Your task to perform on an android device: stop showing notifications on the lock screen Image 0: 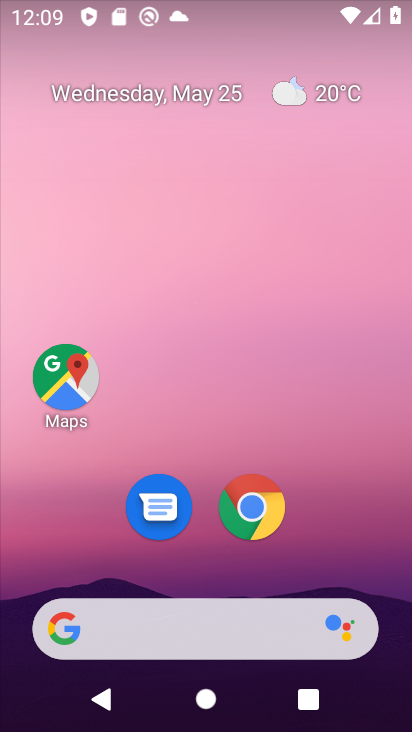
Step 0: drag from (344, 560) to (306, 187)
Your task to perform on an android device: stop showing notifications on the lock screen Image 1: 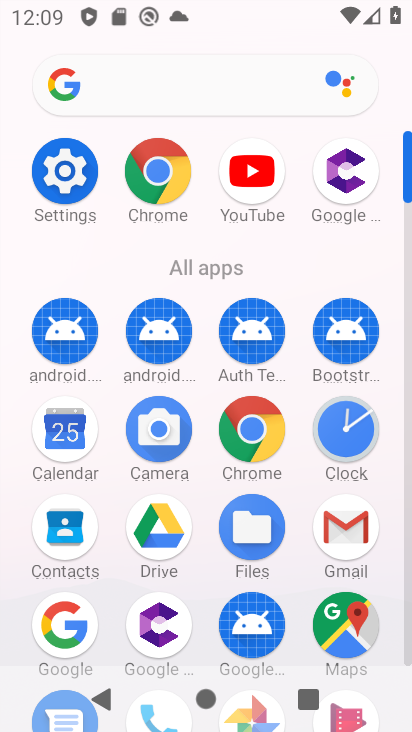
Step 1: click (62, 194)
Your task to perform on an android device: stop showing notifications on the lock screen Image 2: 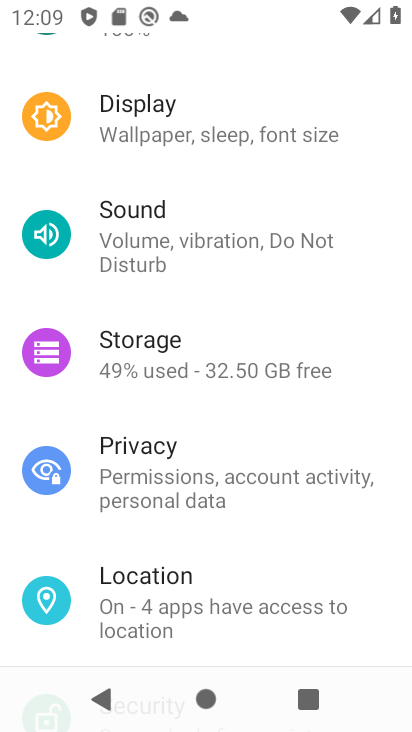
Step 2: drag from (287, 124) to (294, 567)
Your task to perform on an android device: stop showing notifications on the lock screen Image 3: 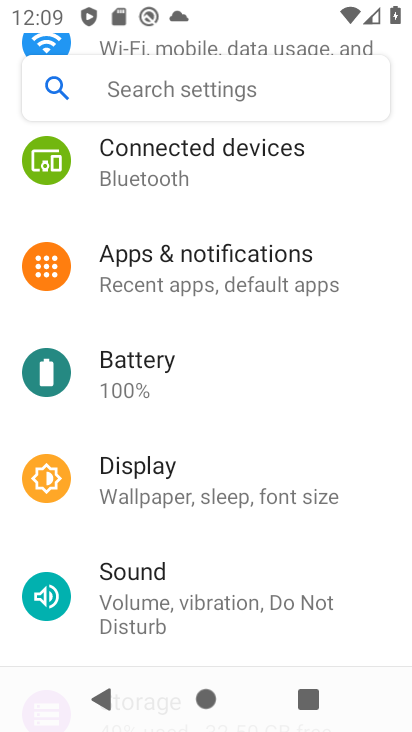
Step 3: click (225, 267)
Your task to perform on an android device: stop showing notifications on the lock screen Image 4: 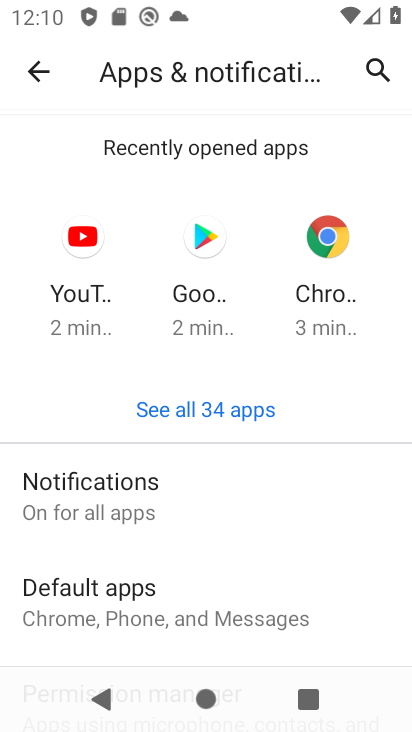
Step 4: click (174, 504)
Your task to perform on an android device: stop showing notifications on the lock screen Image 5: 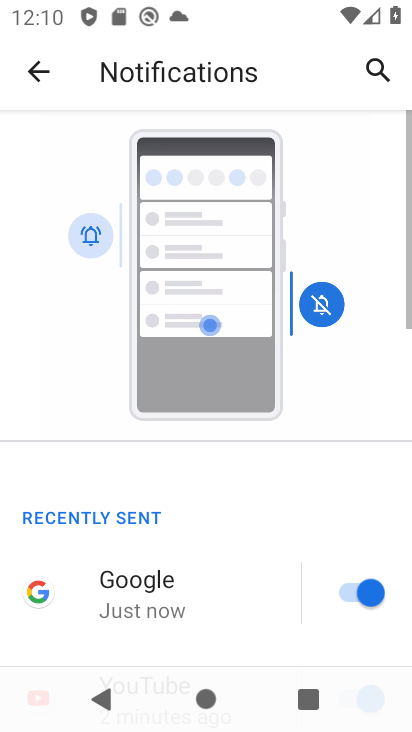
Step 5: click (208, 245)
Your task to perform on an android device: stop showing notifications on the lock screen Image 6: 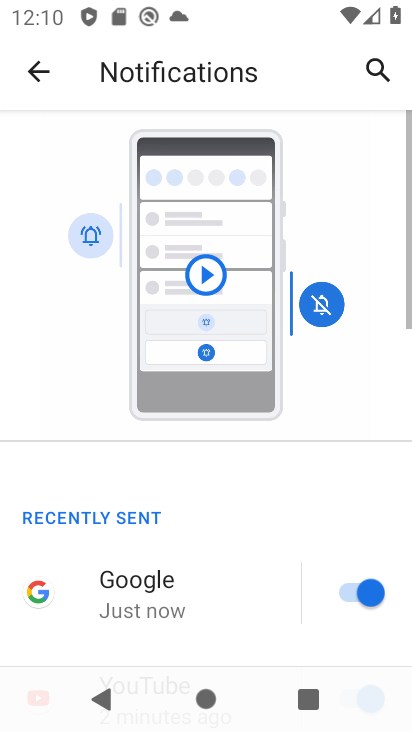
Step 6: drag from (208, 470) to (241, 236)
Your task to perform on an android device: stop showing notifications on the lock screen Image 7: 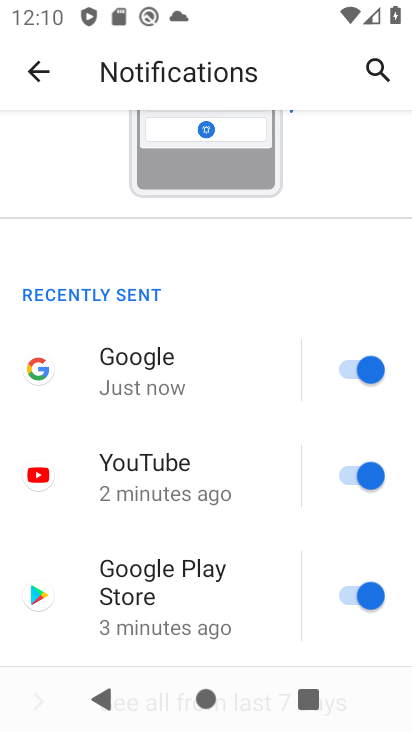
Step 7: drag from (253, 585) to (284, 215)
Your task to perform on an android device: stop showing notifications on the lock screen Image 8: 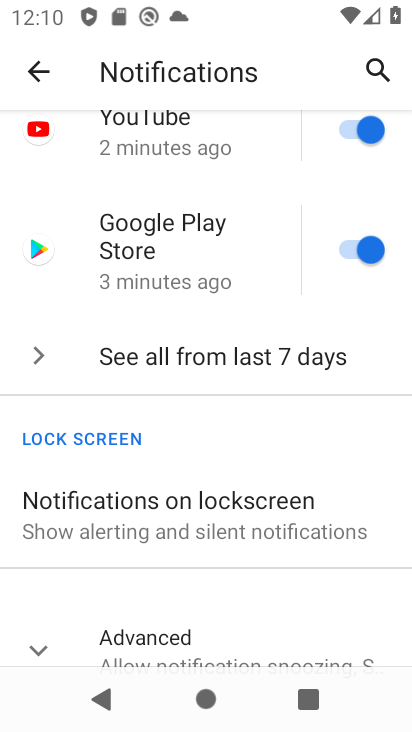
Step 8: drag from (246, 600) to (255, 127)
Your task to perform on an android device: stop showing notifications on the lock screen Image 9: 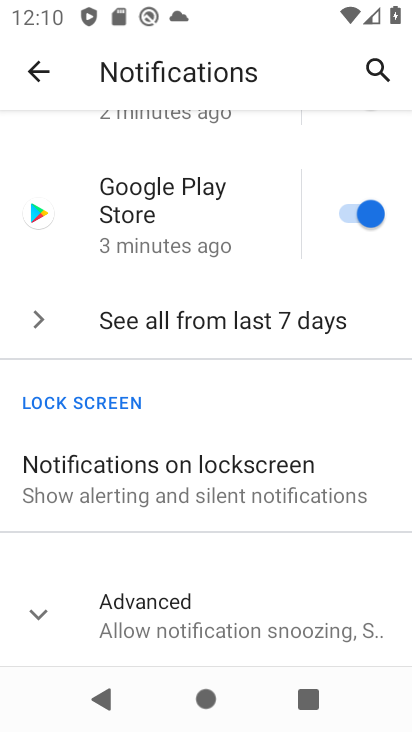
Step 9: click (238, 484)
Your task to perform on an android device: stop showing notifications on the lock screen Image 10: 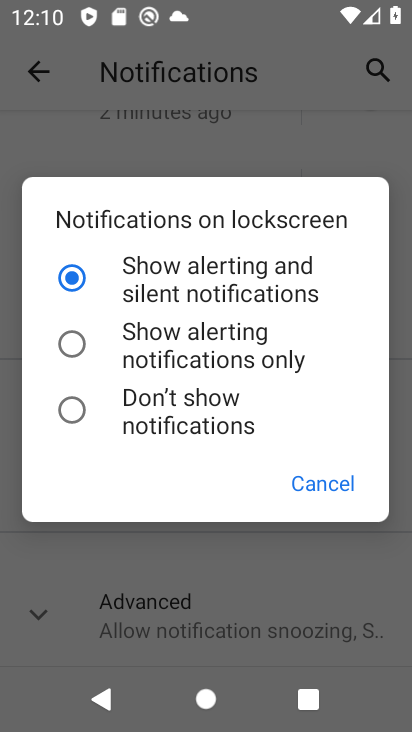
Step 10: click (84, 411)
Your task to perform on an android device: stop showing notifications on the lock screen Image 11: 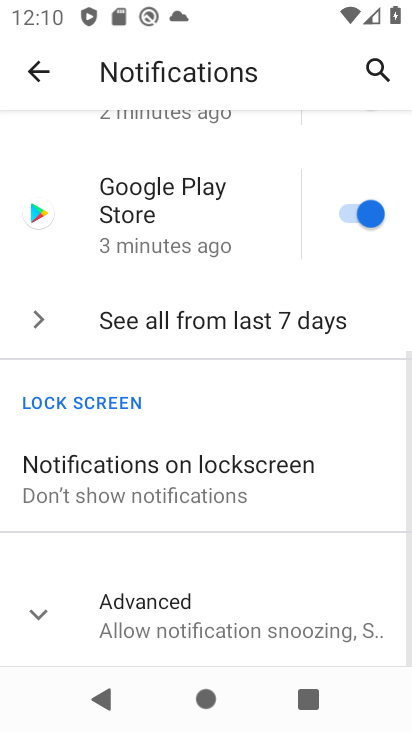
Step 11: task complete